Your task to perform on an android device: turn off translation in the chrome app Image 0: 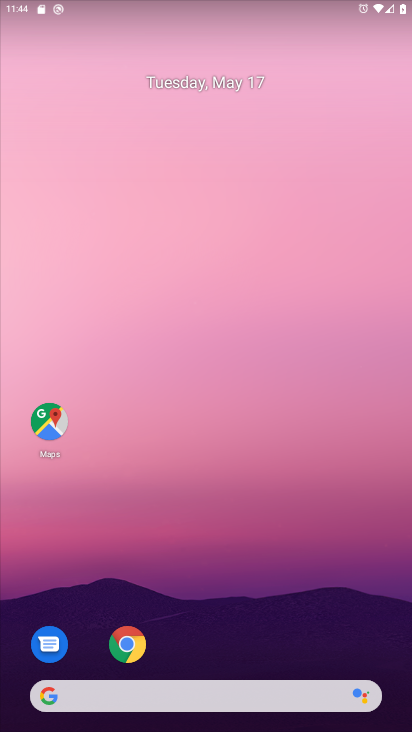
Step 0: click (132, 649)
Your task to perform on an android device: turn off translation in the chrome app Image 1: 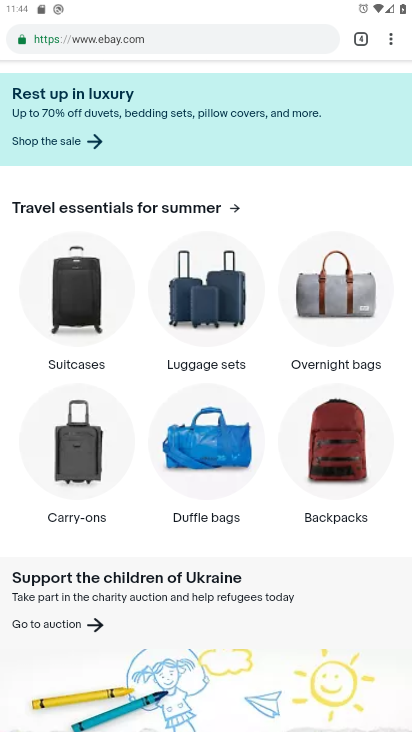
Step 1: click (396, 34)
Your task to perform on an android device: turn off translation in the chrome app Image 2: 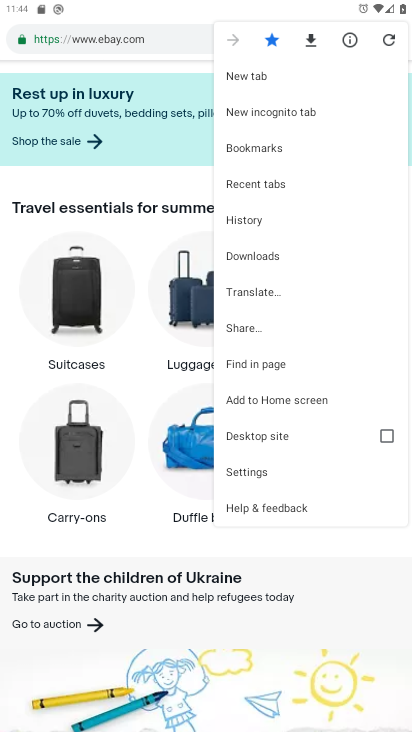
Step 2: click (275, 467)
Your task to perform on an android device: turn off translation in the chrome app Image 3: 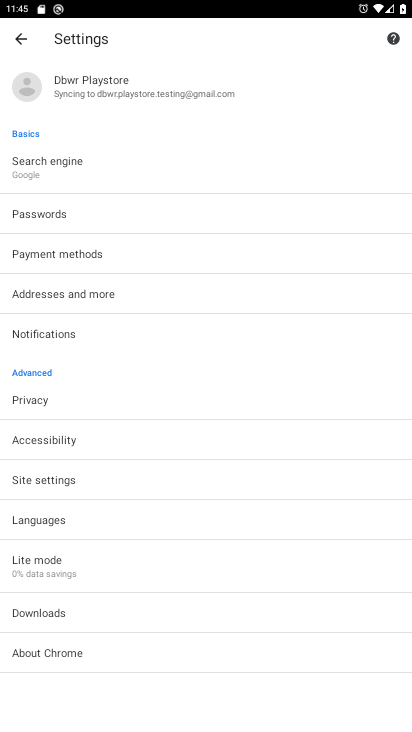
Step 3: click (68, 517)
Your task to perform on an android device: turn off translation in the chrome app Image 4: 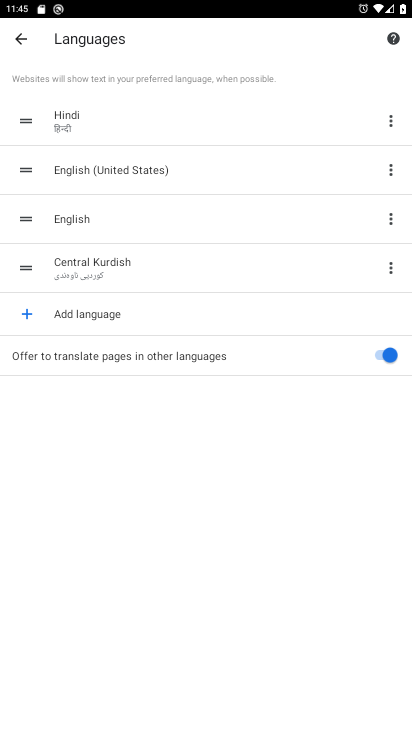
Step 4: click (369, 348)
Your task to perform on an android device: turn off translation in the chrome app Image 5: 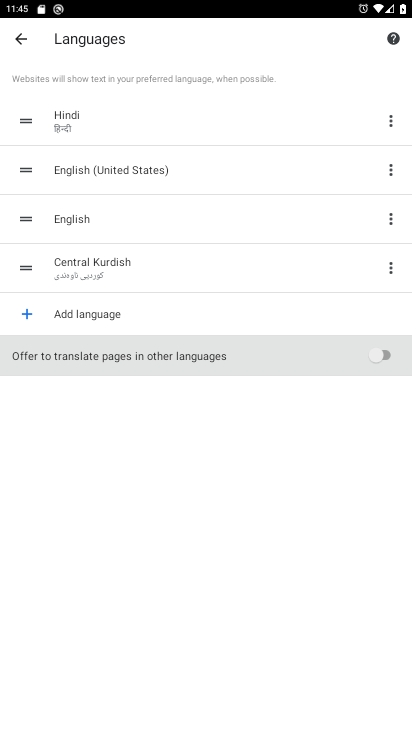
Step 5: task complete